Your task to perform on an android device: turn on wifi Image 0: 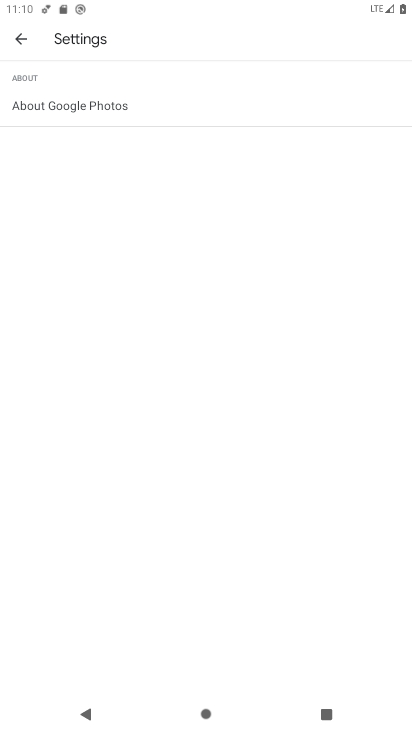
Step 0: press home button
Your task to perform on an android device: turn on wifi Image 1: 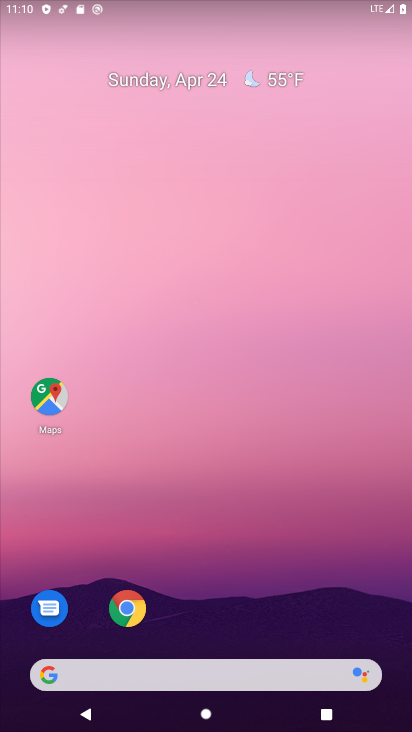
Step 1: drag from (199, 625) to (245, 21)
Your task to perform on an android device: turn on wifi Image 2: 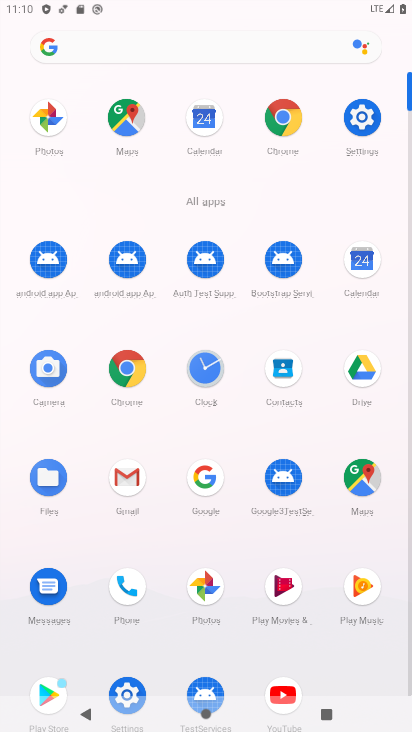
Step 2: click (375, 174)
Your task to perform on an android device: turn on wifi Image 3: 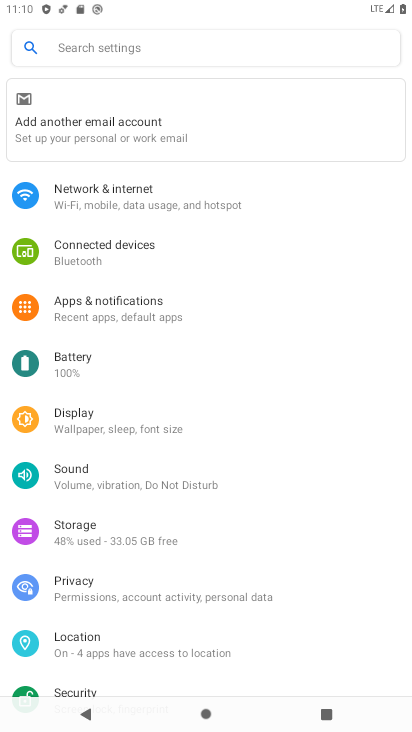
Step 3: click (138, 204)
Your task to perform on an android device: turn on wifi Image 4: 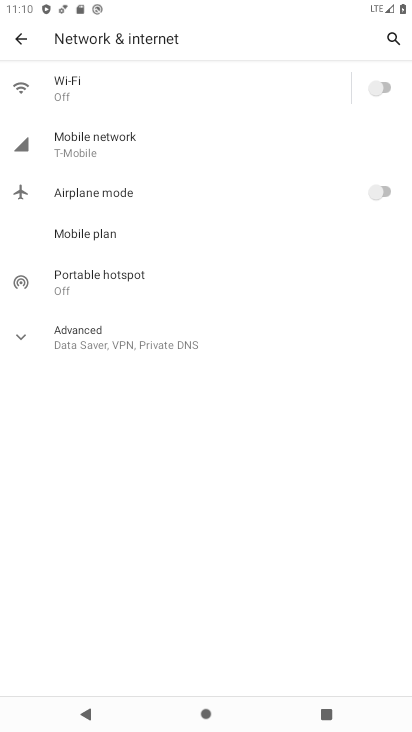
Step 4: click (386, 78)
Your task to perform on an android device: turn on wifi Image 5: 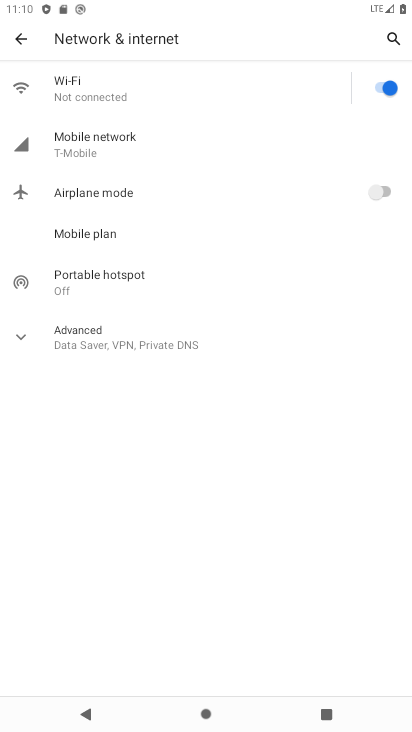
Step 5: task complete